Your task to perform on an android device: turn notification dots on Image 0: 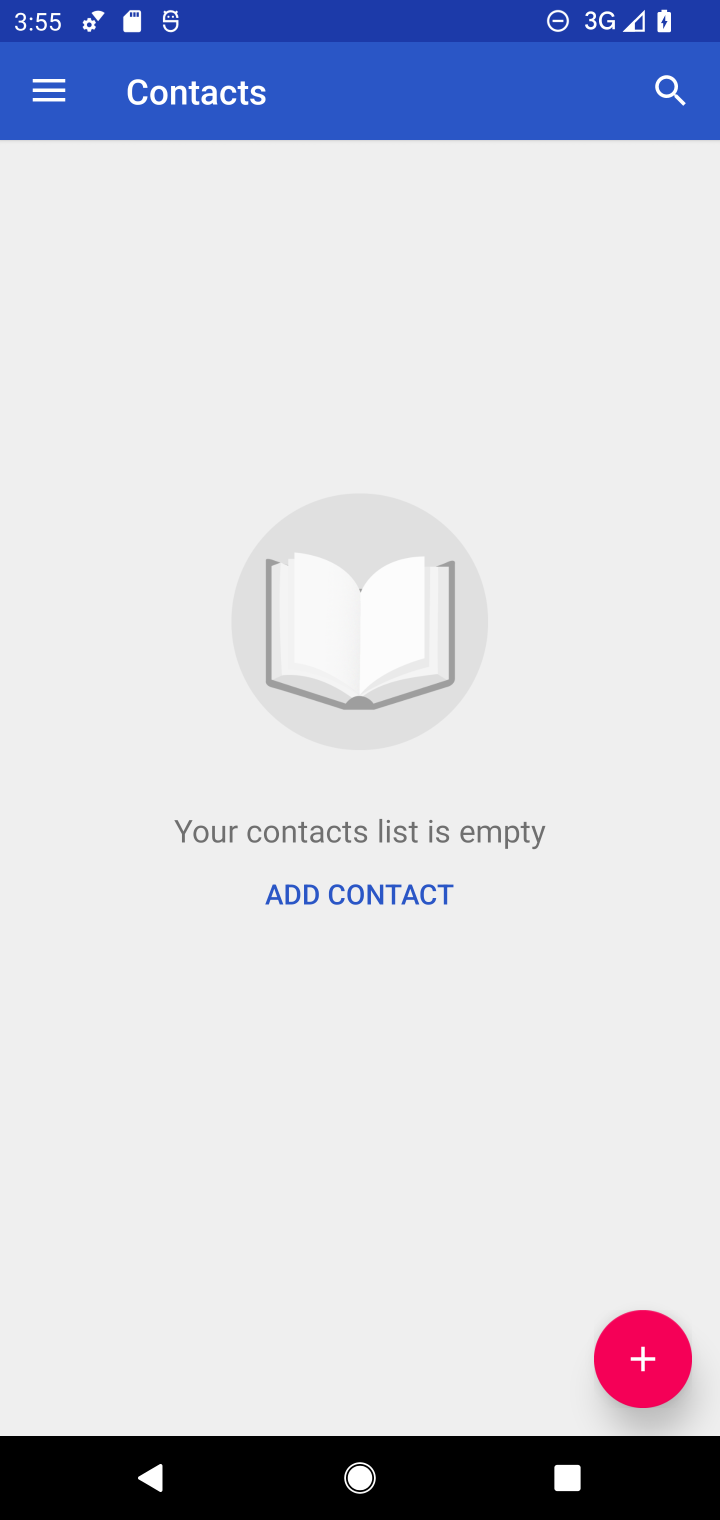
Step 0: press home button
Your task to perform on an android device: turn notification dots on Image 1: 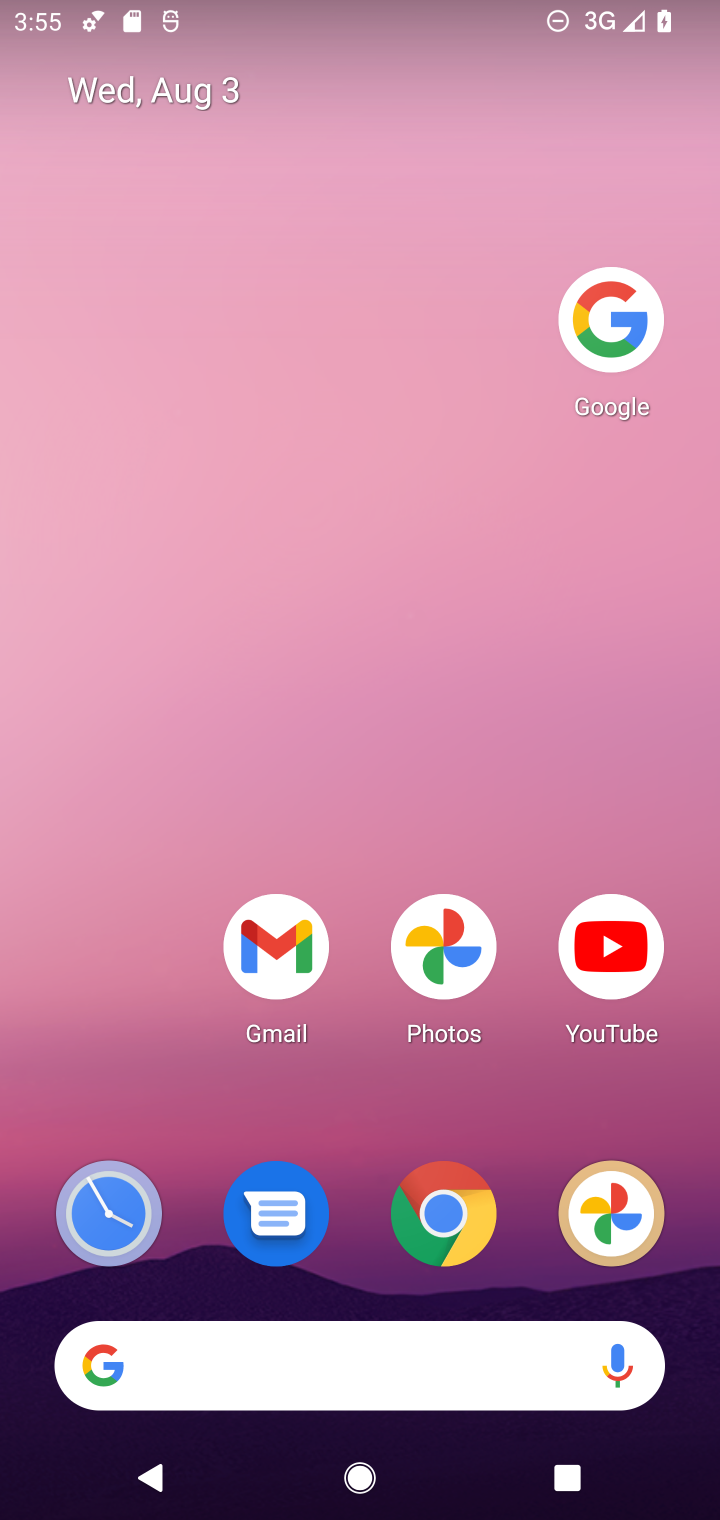
Step 1: drag from (374, 1228) to (490, 86)
Your task to perform on an android device: turn notification dots on Image 2: 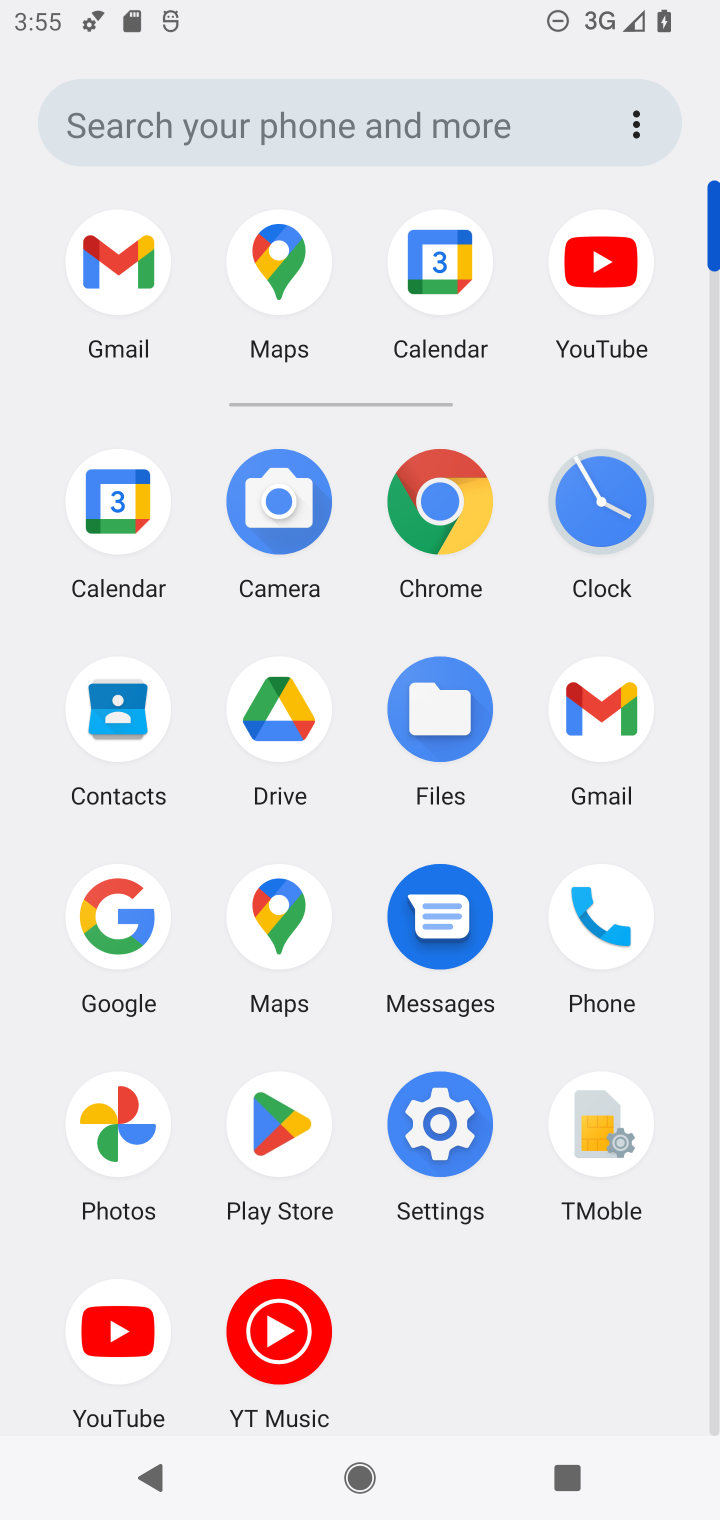
Step 2: click (422, 1113)
Your task to perform on an android device: turn notification dots on Image 3: 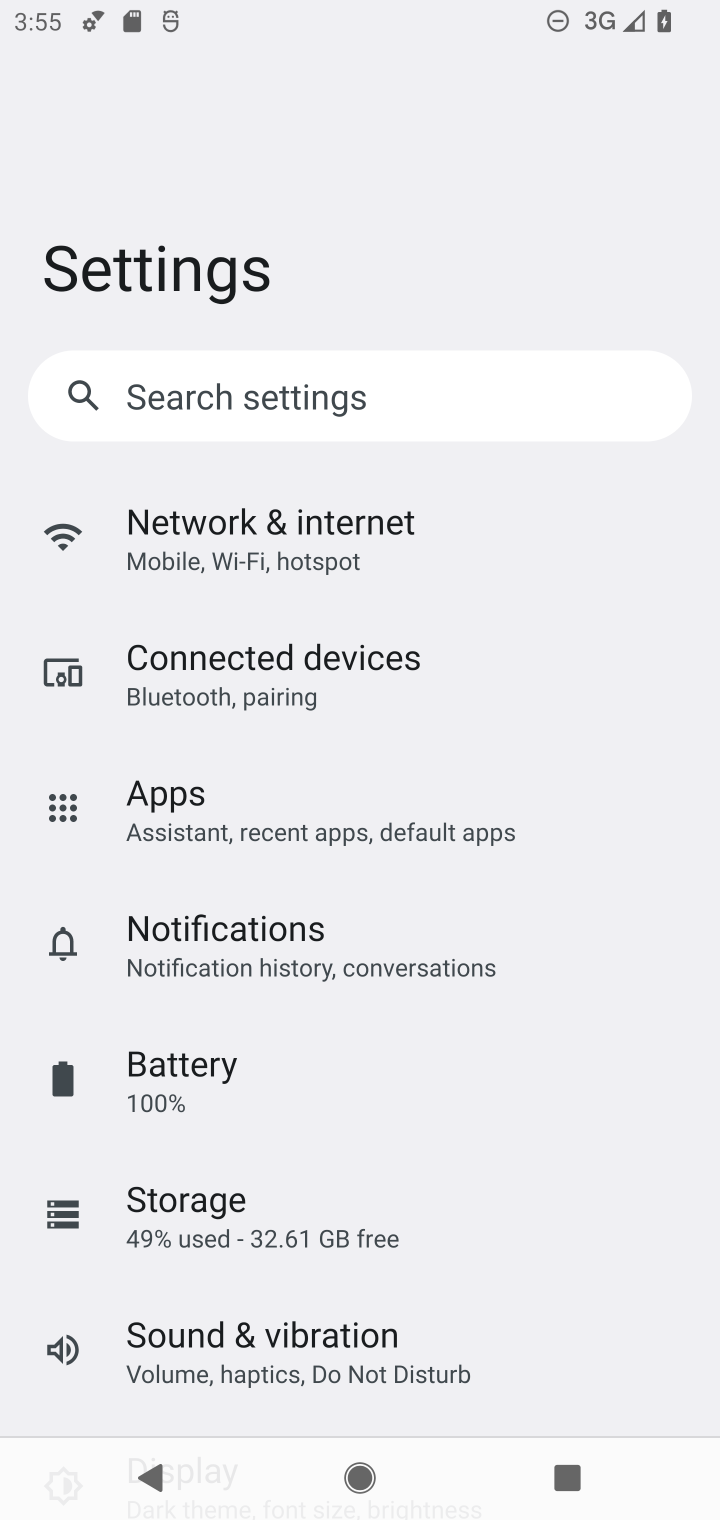
Step 3: click (343, 387)
Your task to perform on an android device: turn notification dots on Image 4: 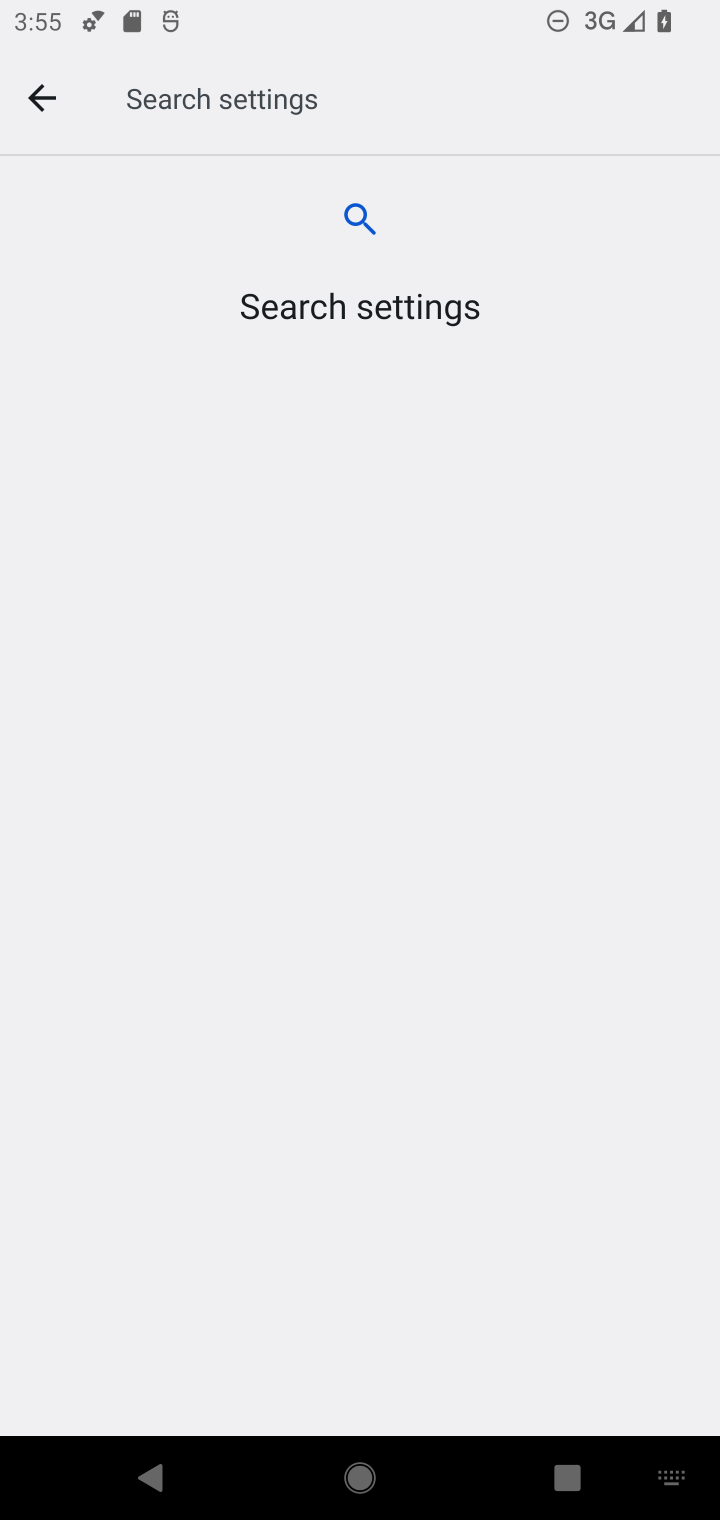
Step 4: drag from (338, 77) to (368, 141)
Your task to perform on an android device: turn notification dots on Image 5: 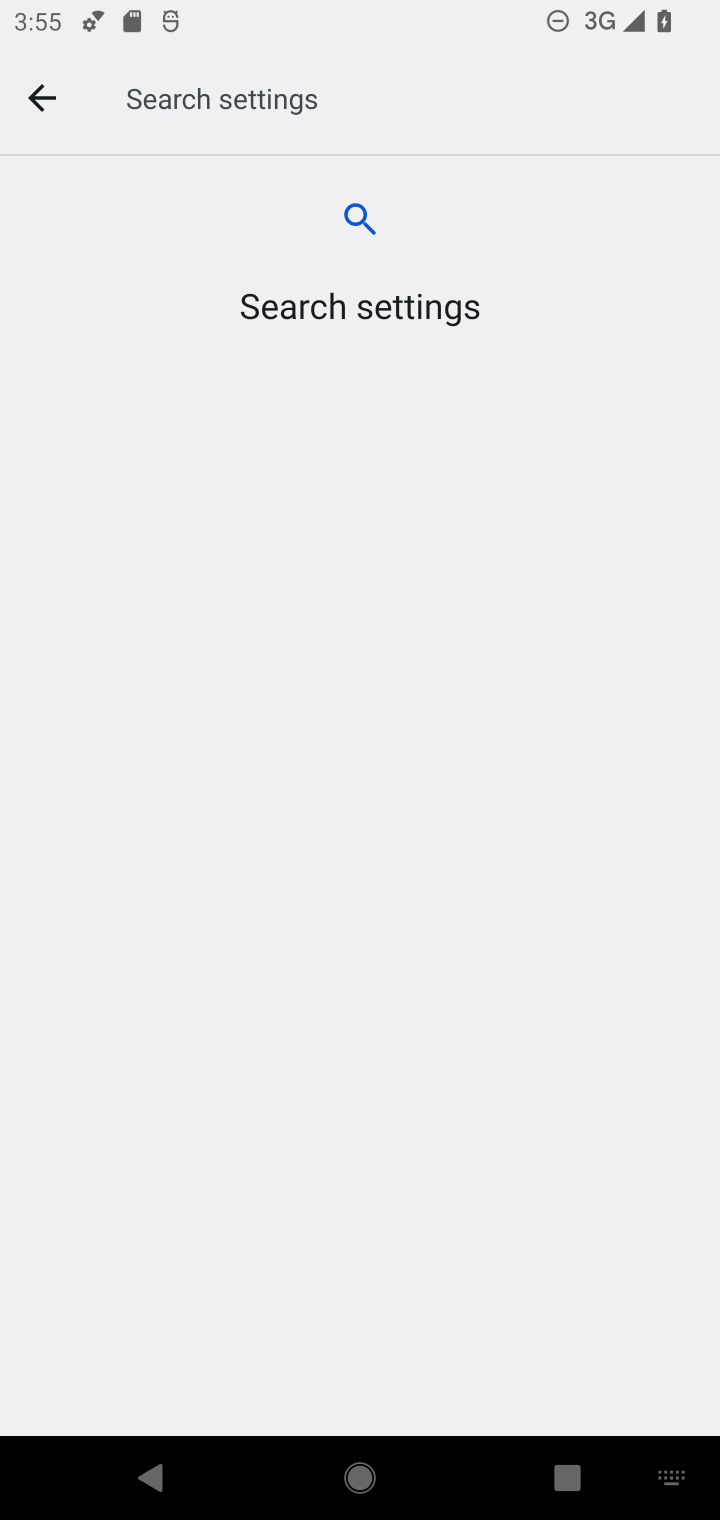
Step 5: type "notification dots "
Your task to perform on an android device: turn notification dots on Image 6: 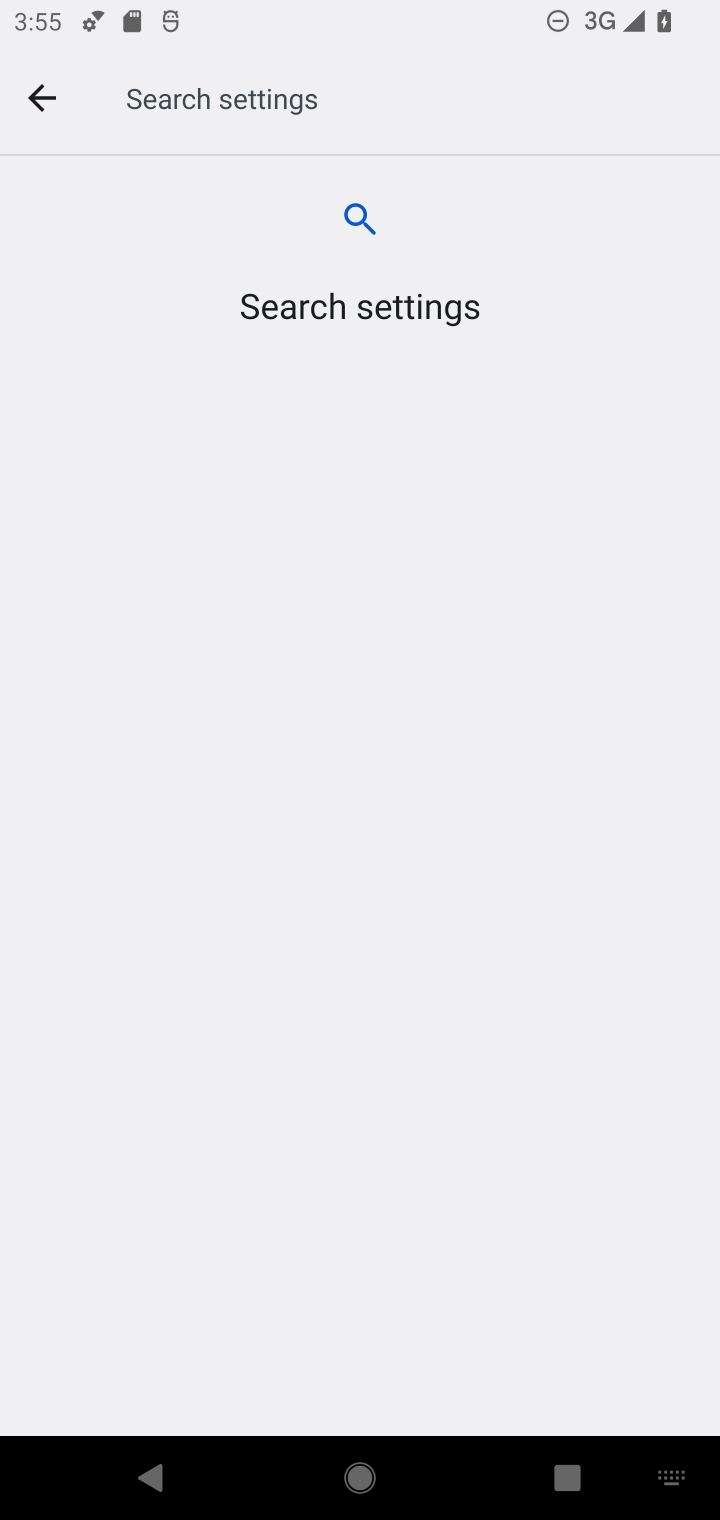
Step 6: click (65, 93)
Your task to perform on an android device: turn notification dots on Image 7: 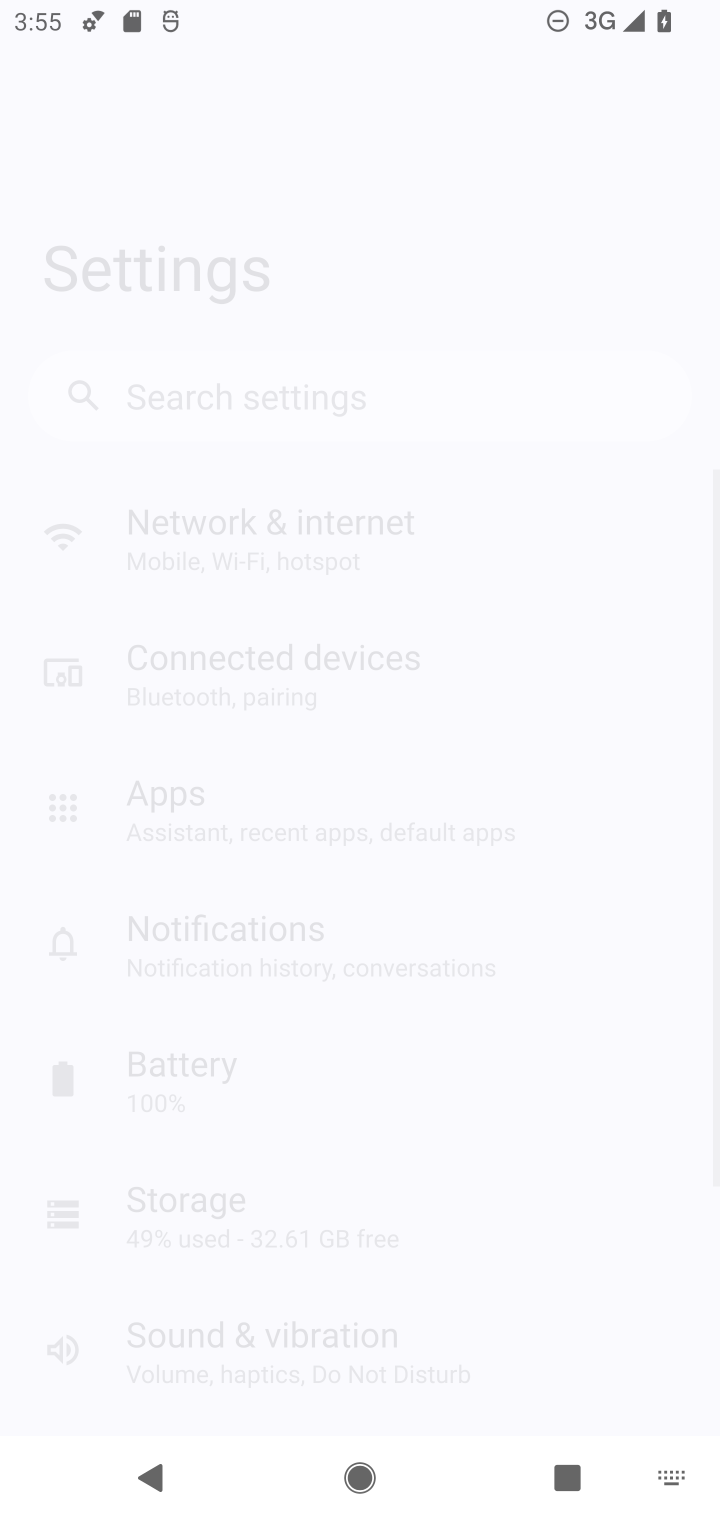
Step 7: click (36, 96)
Your task to perform on an android device: turn notification dots on Image 8: 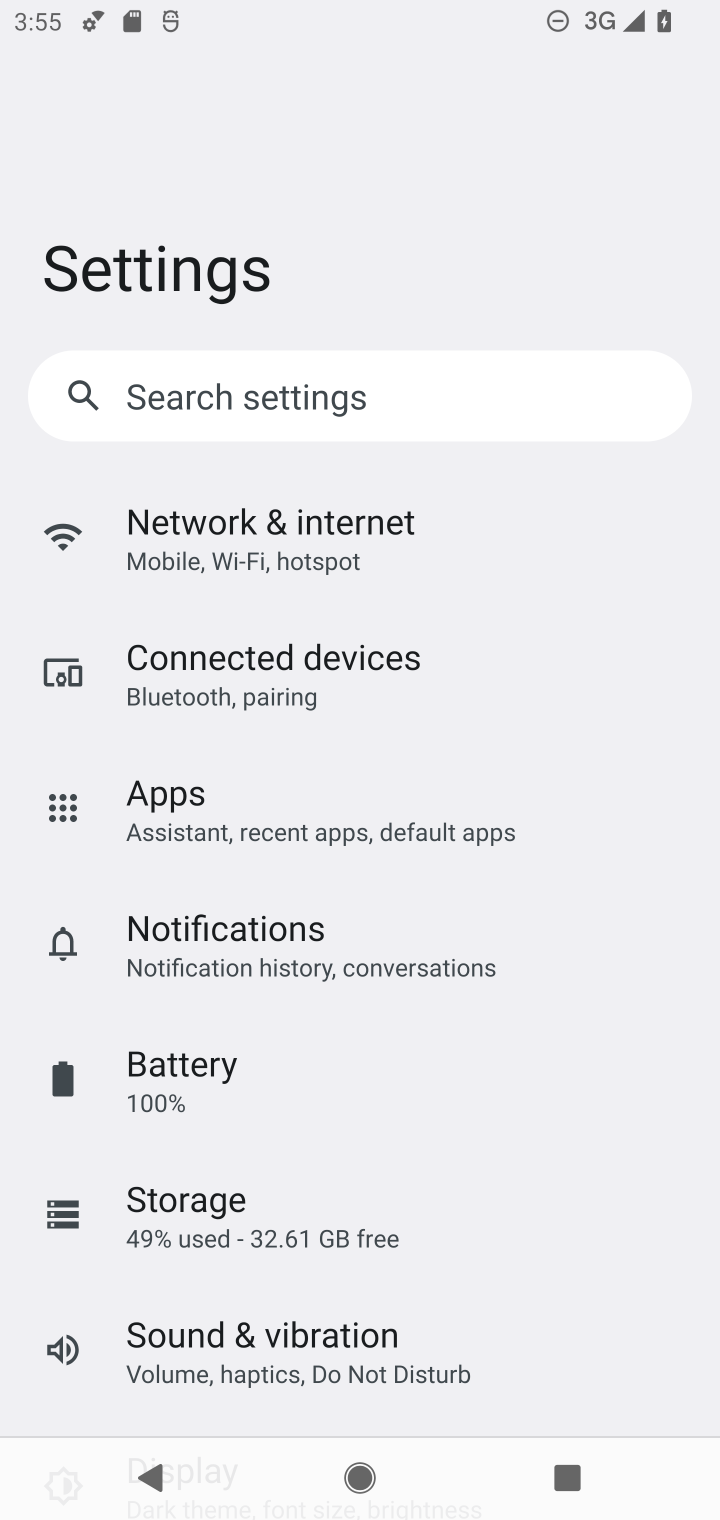
Step 8: click (235, 392)
Your task to perform on an android device: turn notification dots on Image 9: 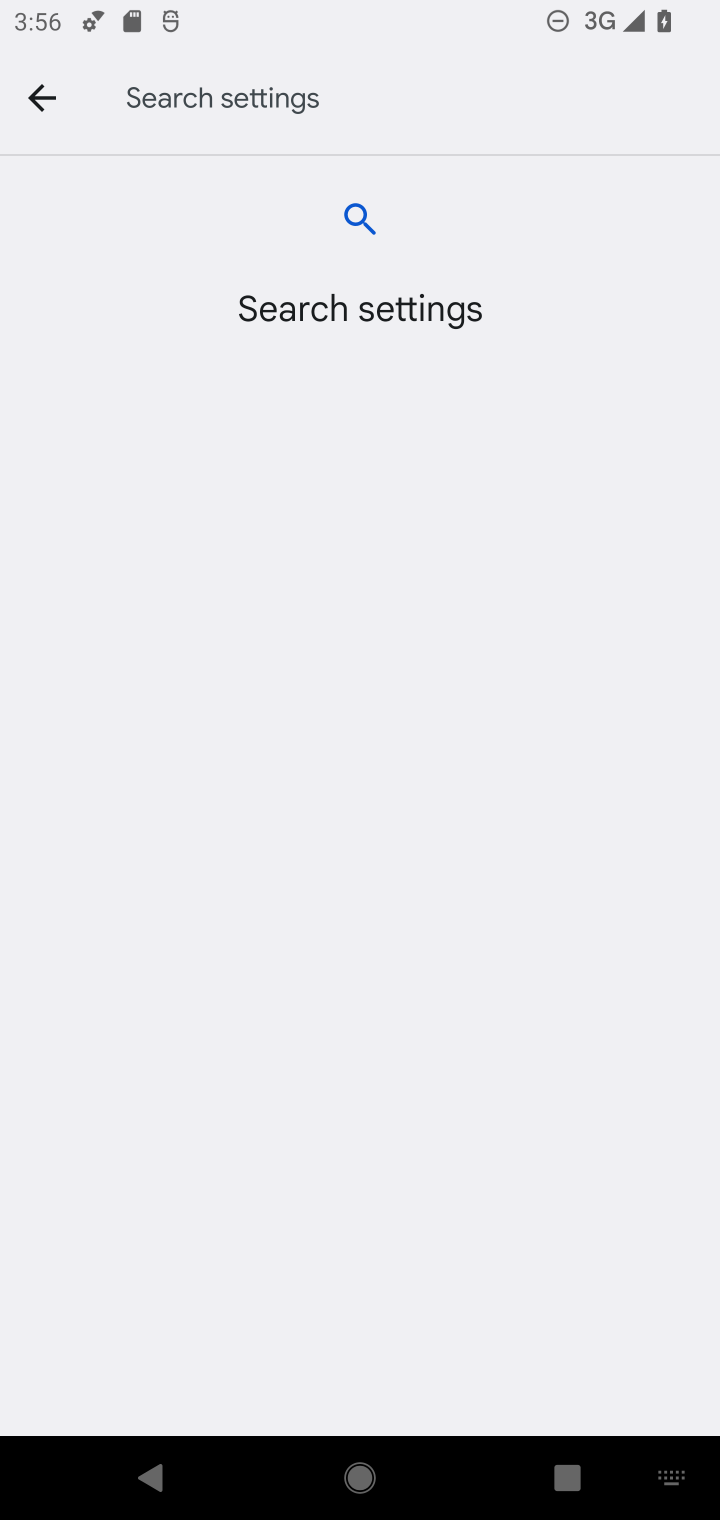
Step 9: type "notification dots "
Your task to perform on an android device: turn notification dots on Image 10: 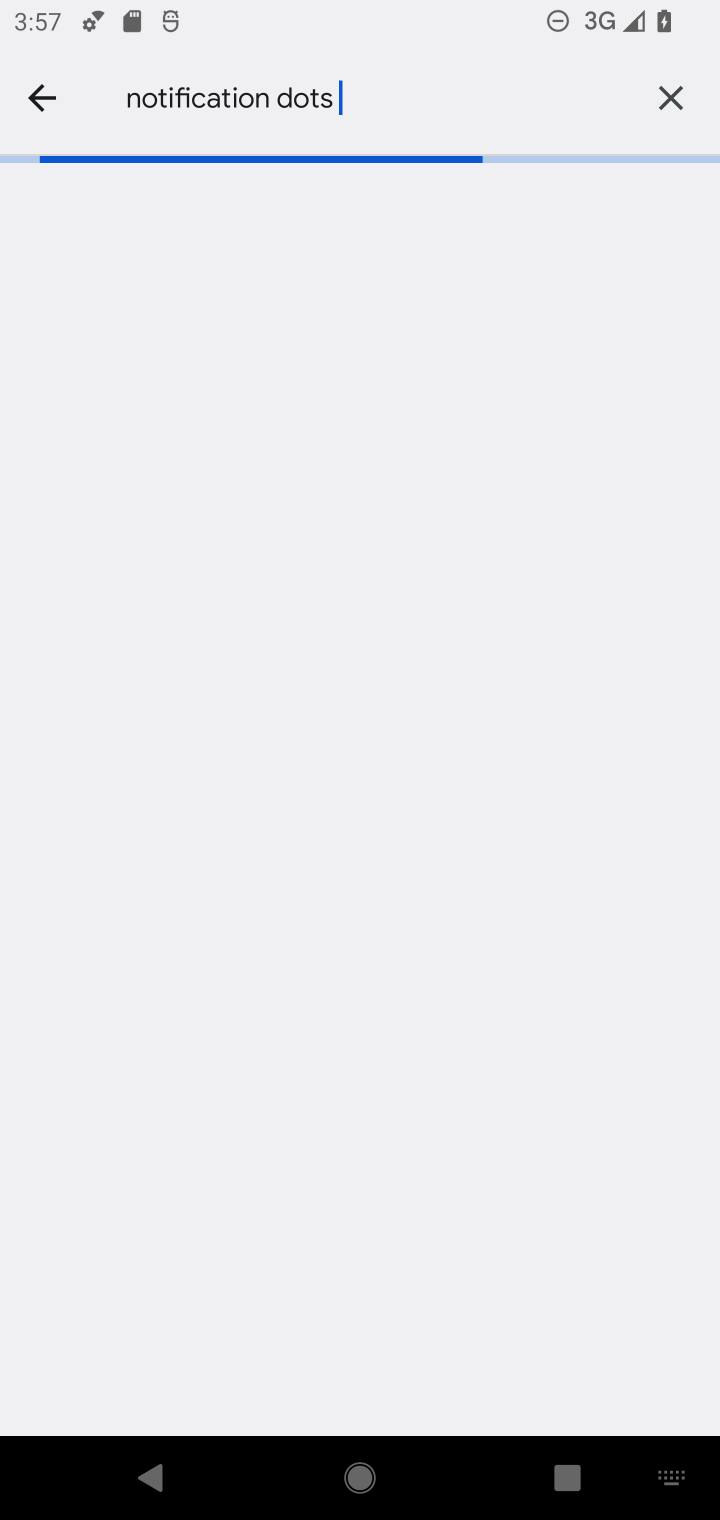
Step 10: task complete